Your task to perform on an android device: Search for vegetarian restaurants on Maps Image 0: 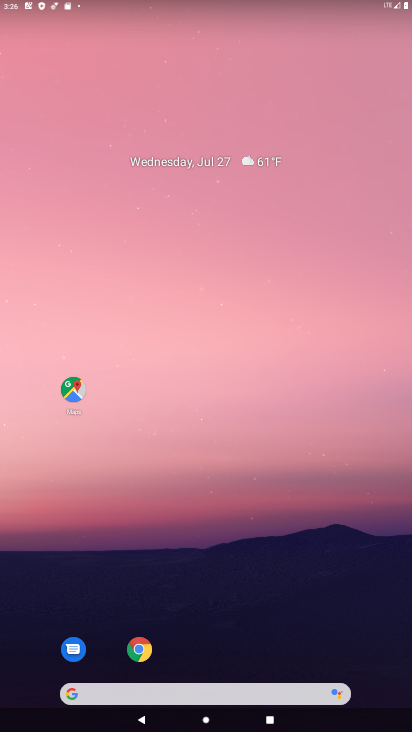
Step 0: click (65, 387)
Your task to perform on an android device: Search for vegetarian restaurants on Maps Image 1: 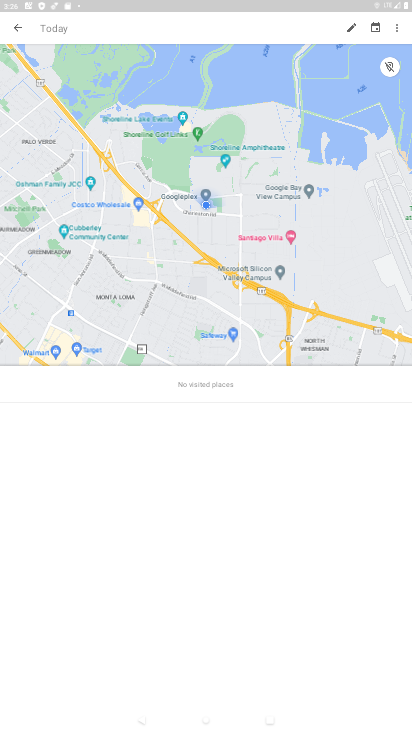
Step 1: click (16, 30)
Your task to perform on an android device: Search for vegetarian restaurants on Maps Image 2: 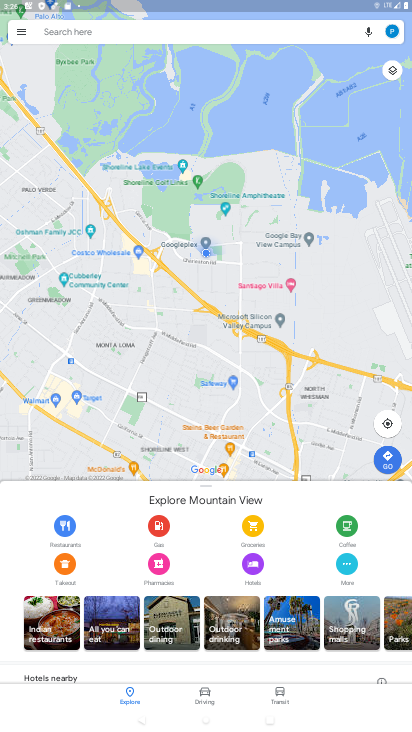
Step 2: click (62, 33)
Your task to perform on an android device: Search for vegetarian restaurants on Maps Image 3: 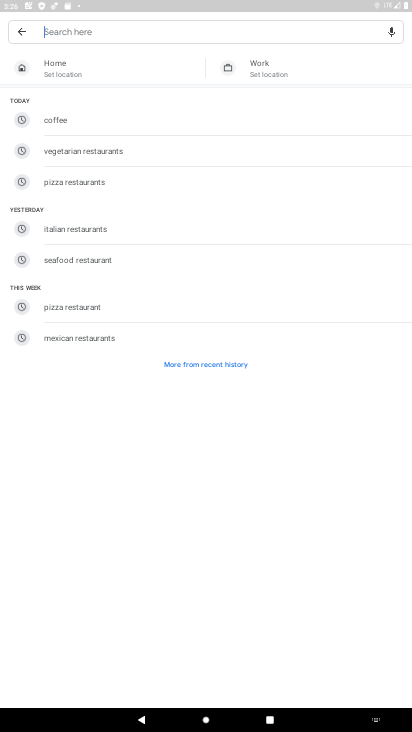
Step 3: click (97, 151)
Your task to perform on an android device: Search for vegetarian restaurants on Maps Image 4: 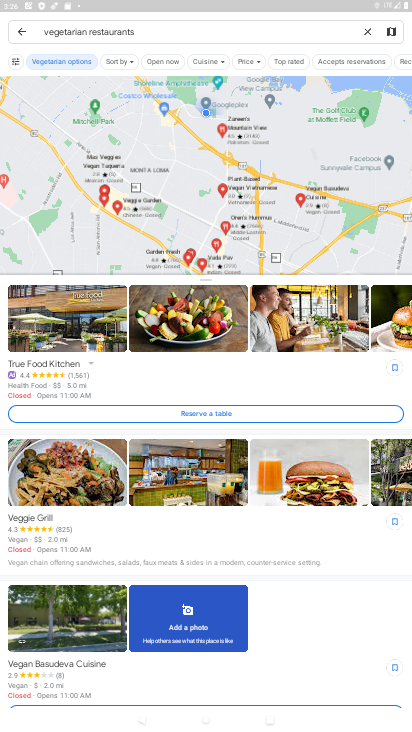
Step 4: task complete